Your task to perform on an android device: change the upload size in google photos Image 0: 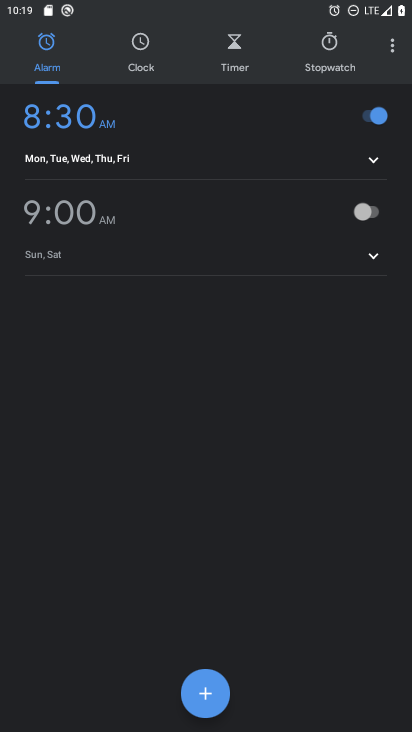
Step 0: press home button
Your task to perform on an android device: change the upload size in google photos Image 1: 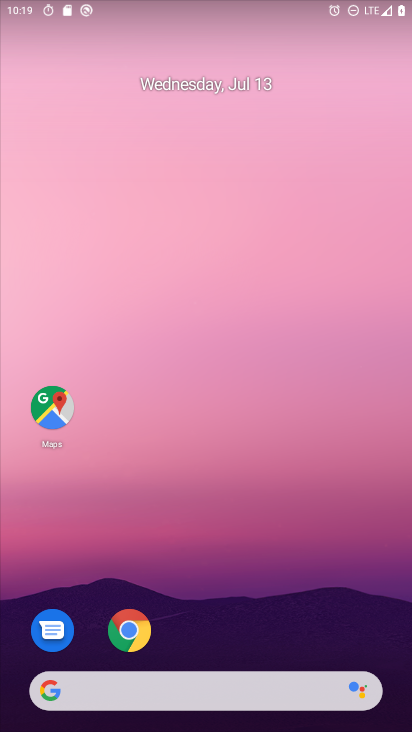
Step 1: drag from (394, 662) to (300, 290)
Your task to perform on an android device: change the upload size in google photos Image 2: 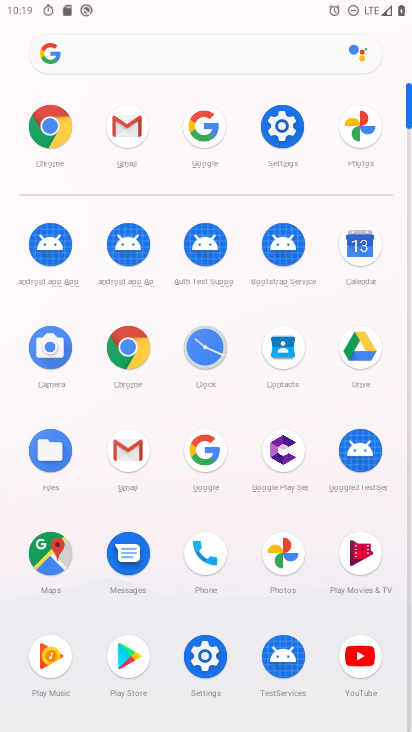
Step 2: click (272, 554)
Your task to perform on an android device: change the upload size in google photos Image 3: 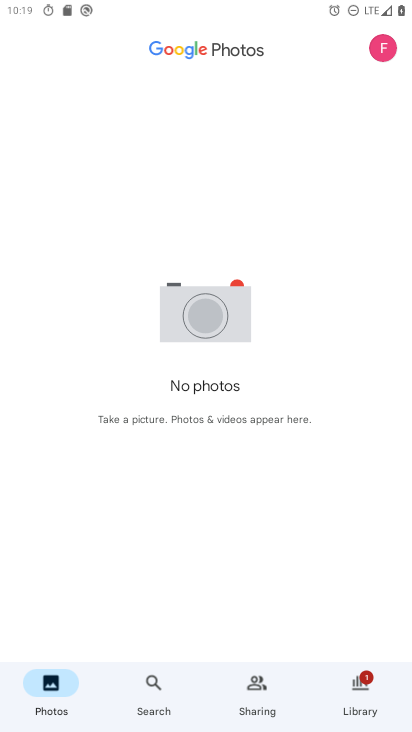
Step 3: click (376, 35)
Your task to perform on an android device: change the upload size in google photos Image 4: 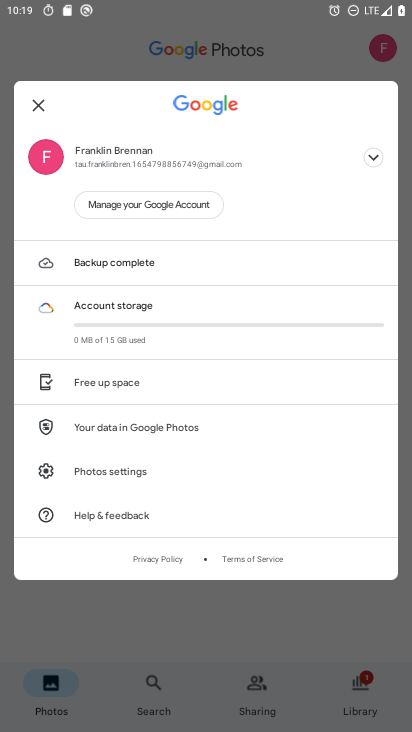
Step 4: click (117, 469)
Your task to perform on an android device: change the upload size in google photos Image 5: 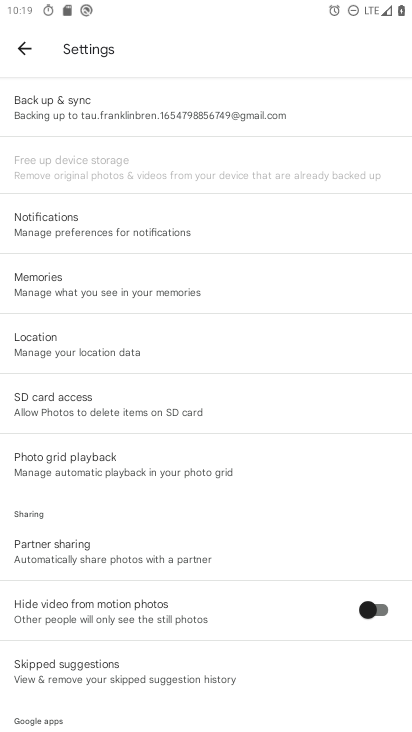
Step 5: task complete